Your task to perform on an android device: Is it going to rain today? Image 0: 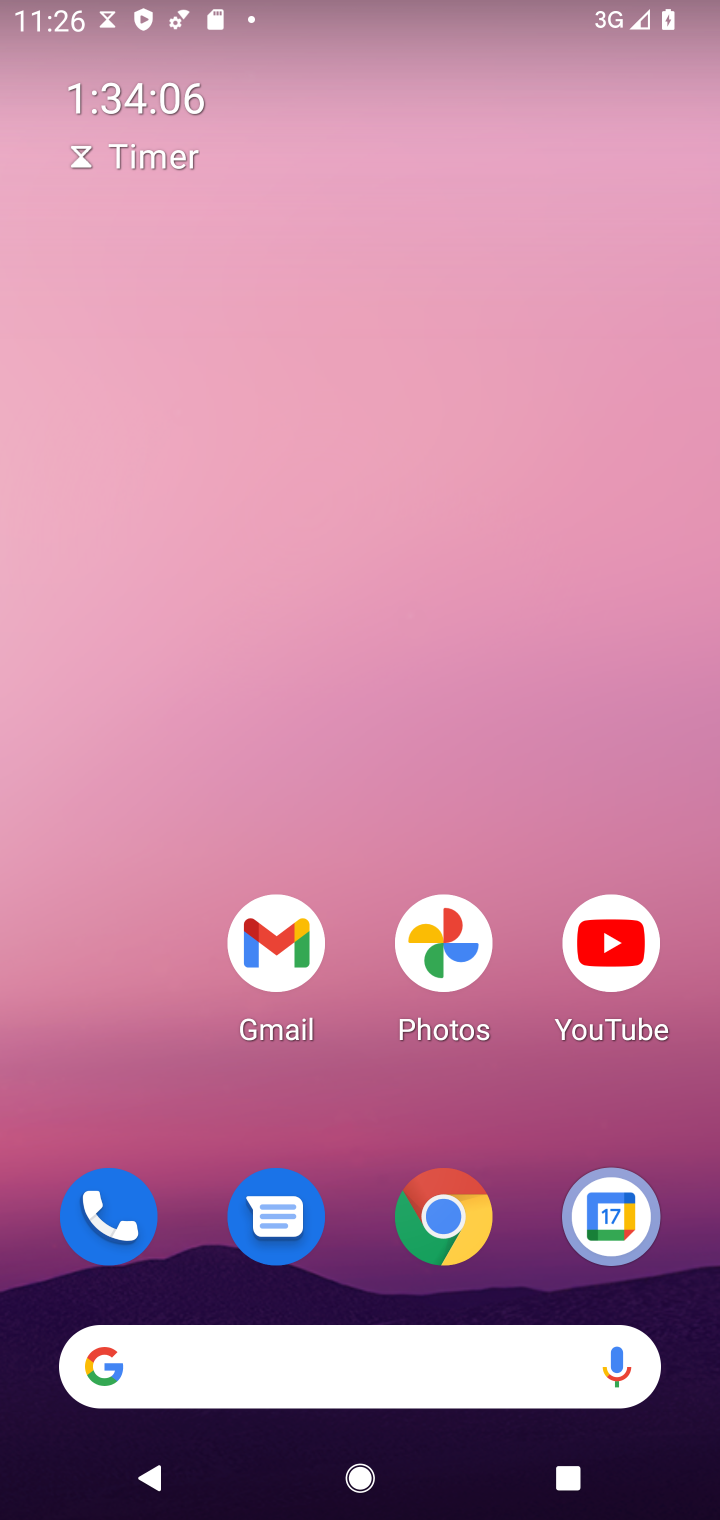
Step 0: click (277, 1347)
Your task to perform on an android device: Is it going to rain today? Image 1: 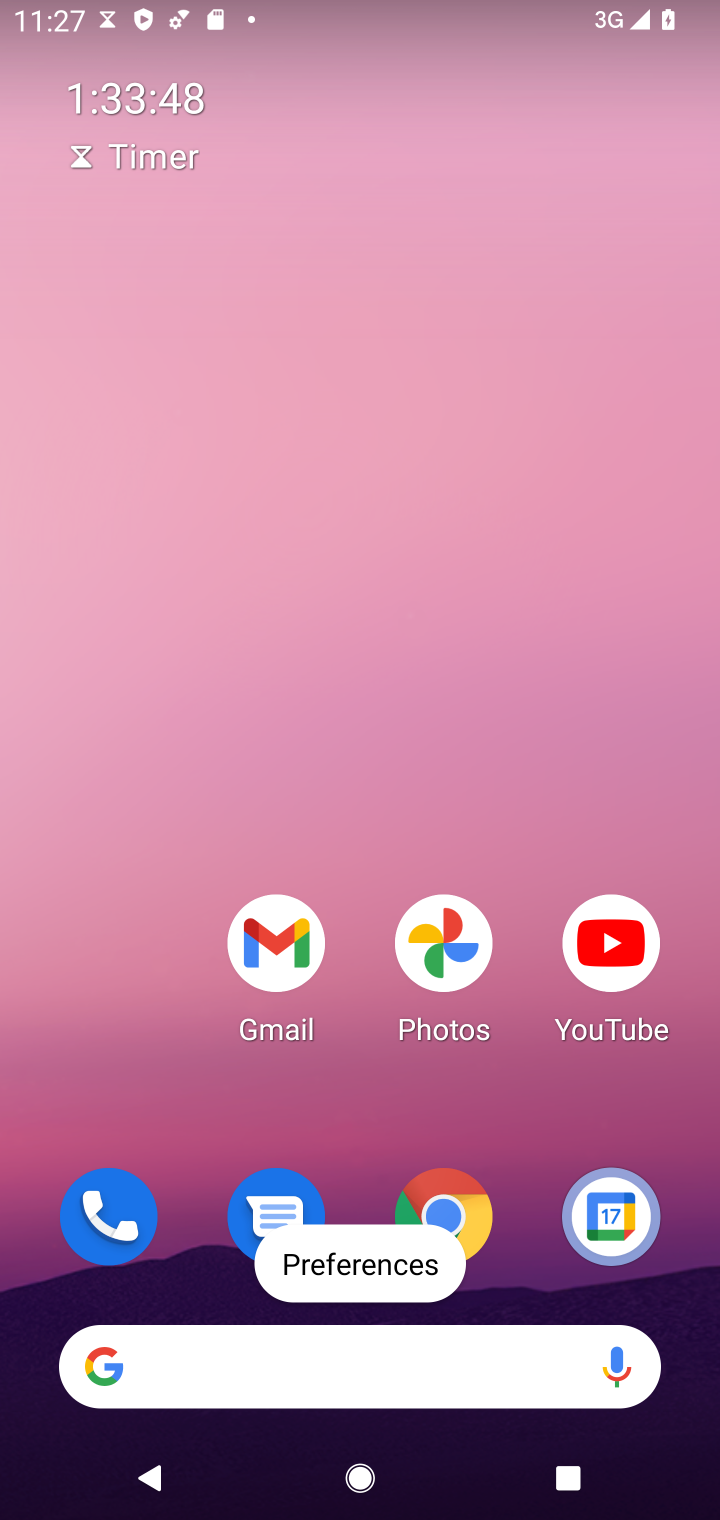
Step 1: click (264, 1357)
Your task to perform on an android device: Is it going to rain today? Image 2: 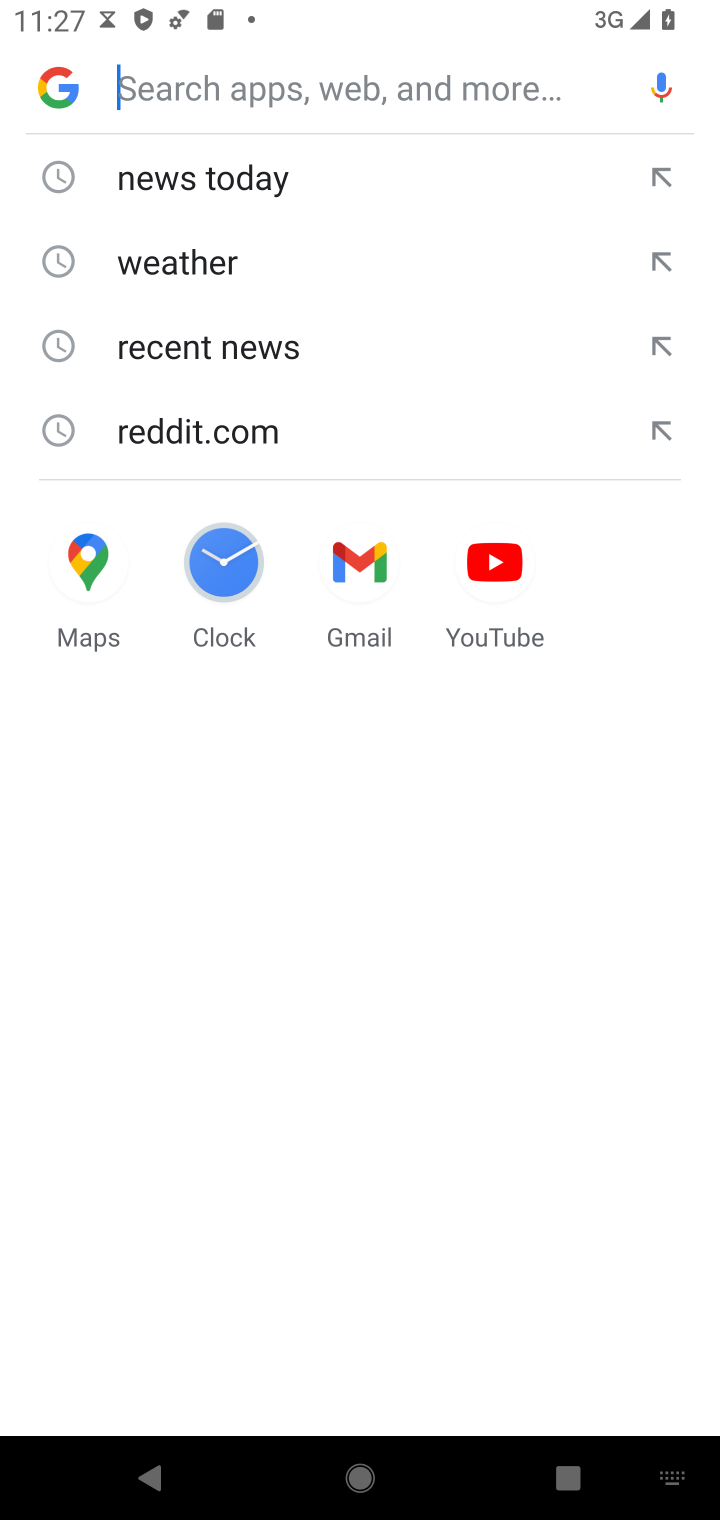
Step 2: click (190, 259)
Your task to perform on an android device: Is it going to rain today? Image 3: 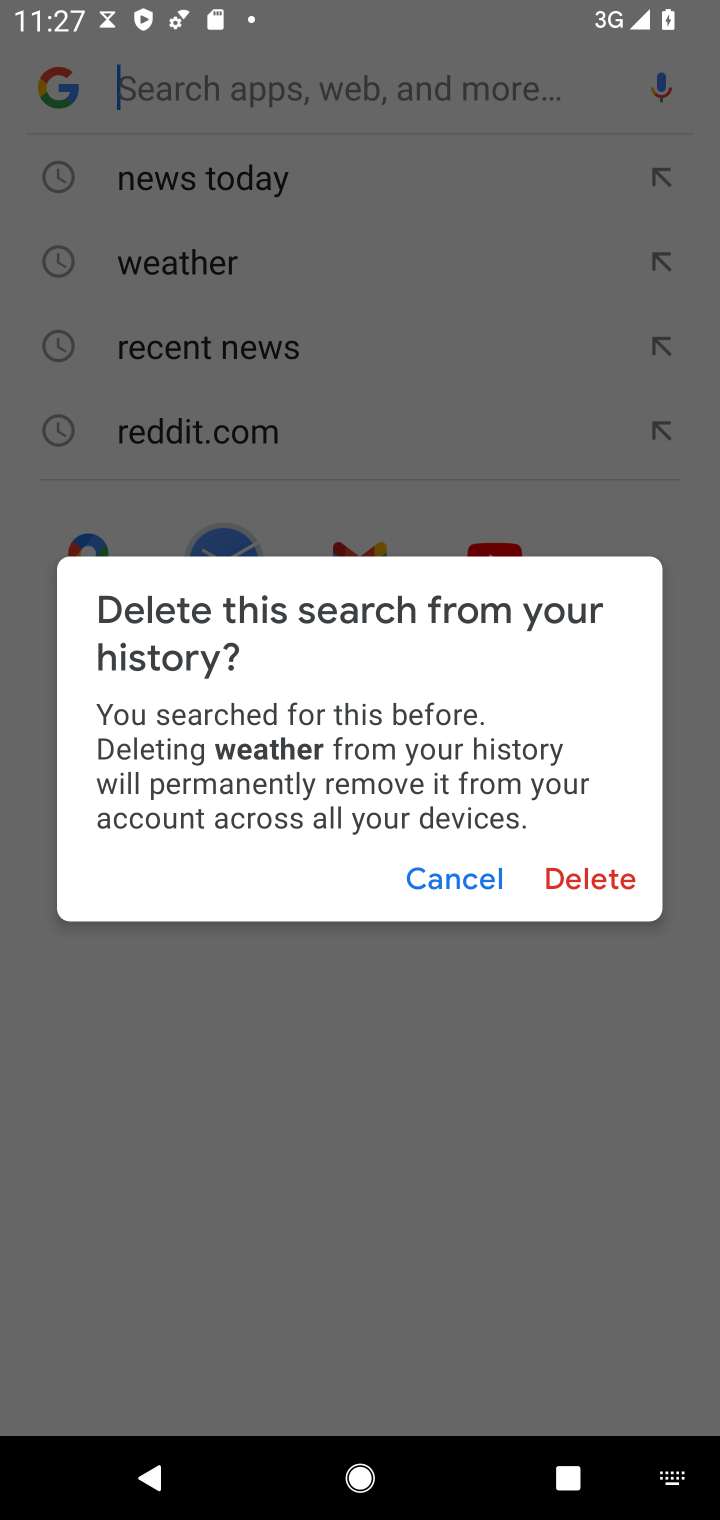
Step 3: click (425, 883)
Your task to perform on an android device: Is it going to rain today? Image 4: 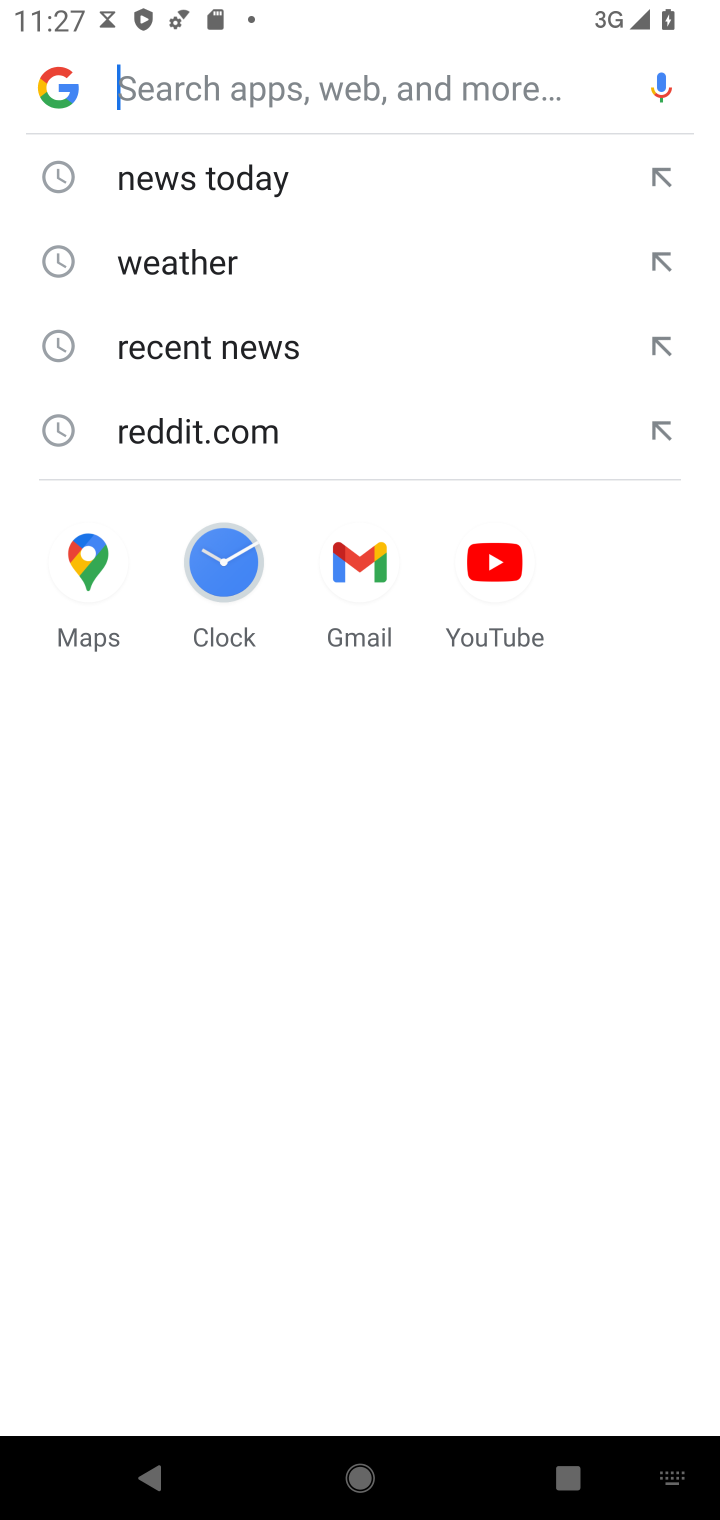
Step 4: click (269, 256)
Your task to perform on an android device: Is it going to rain today? Image 5: 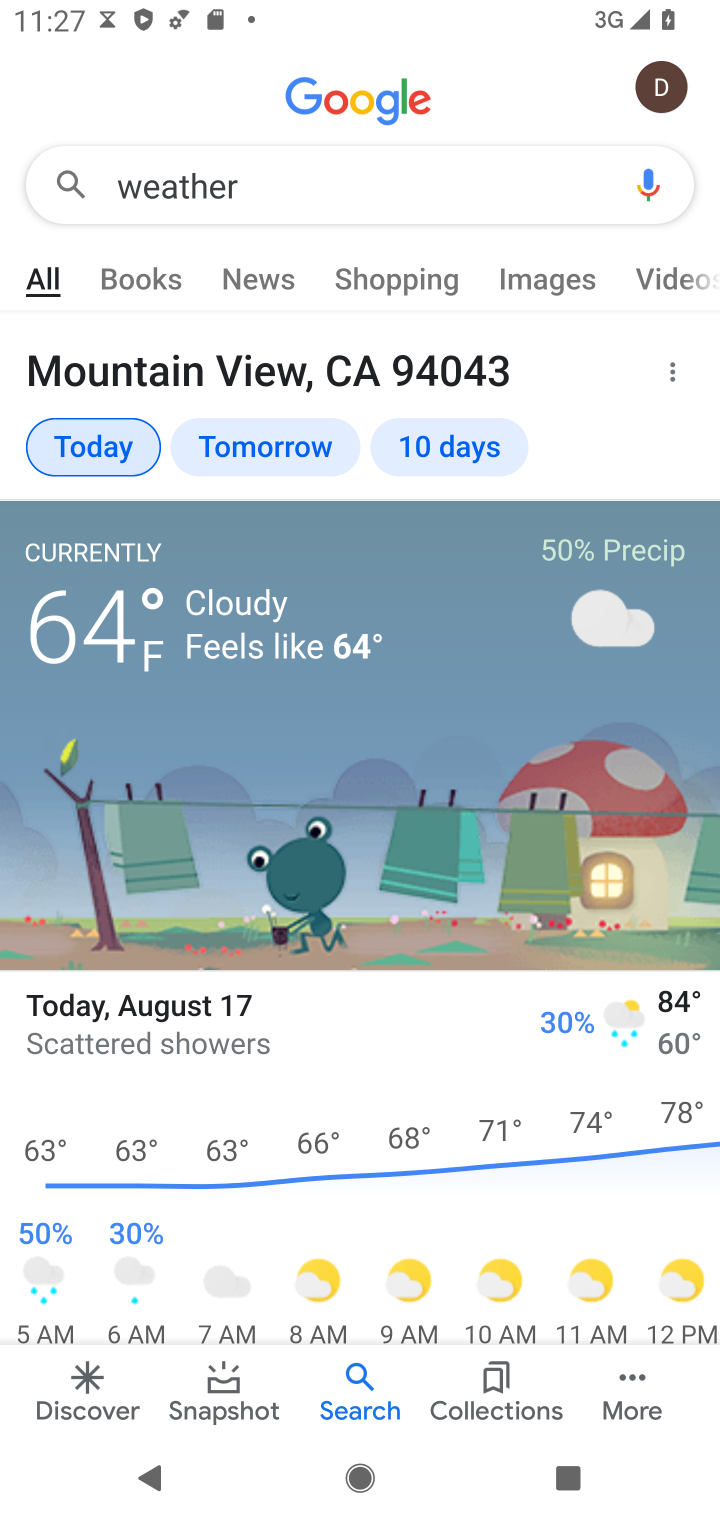
Step 5: task complete